Your task to perform on an android device: What is the news today? Image 0: 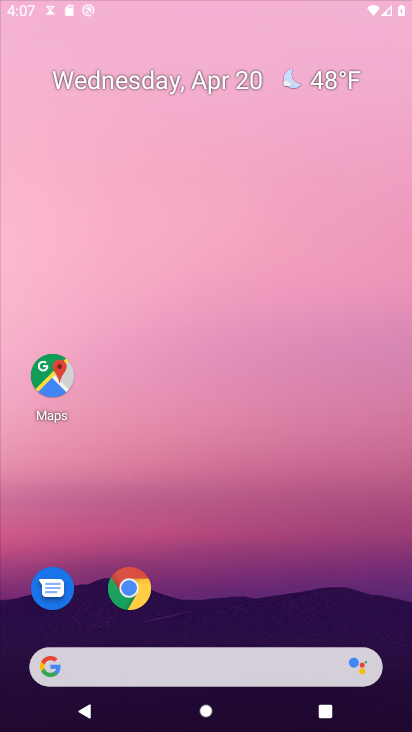
Step 0: click (243, 662)
Your task to perform on an android device: What is the news today? Image 1: 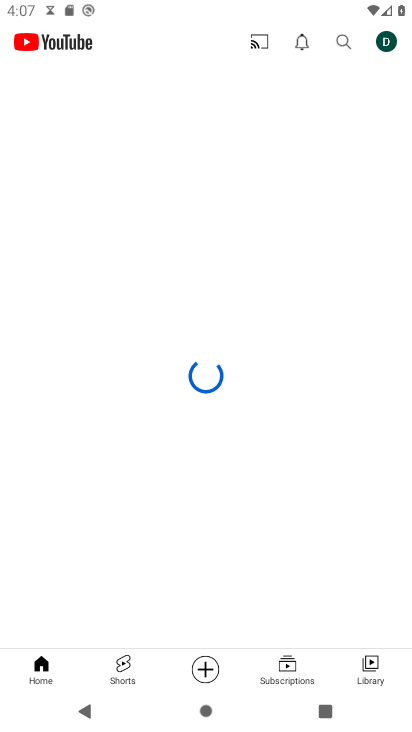
Step 1: press home button
Your task to perform on an android device: What is the news today? Image 2: 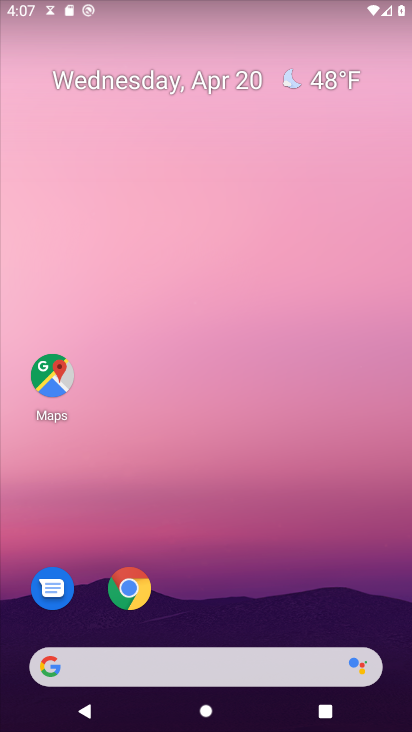
Step 2: drag from (0, 228) to (394, 337)
Your task to perform on an android device: What is the news today? Image 3: 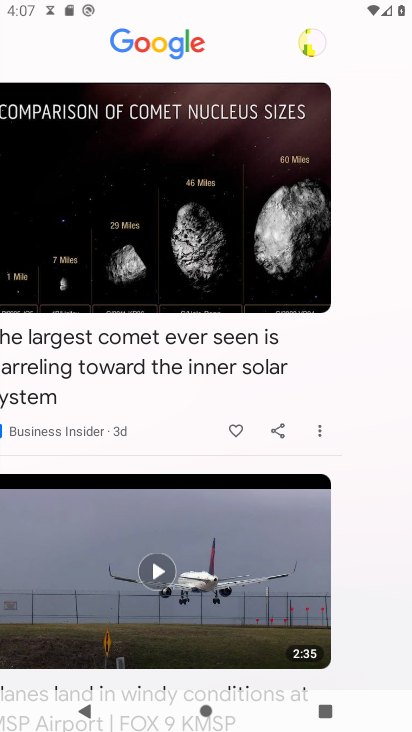
Step 3: click (121, 403)
Your task to perform on an android device: What is the news today? Image 4: 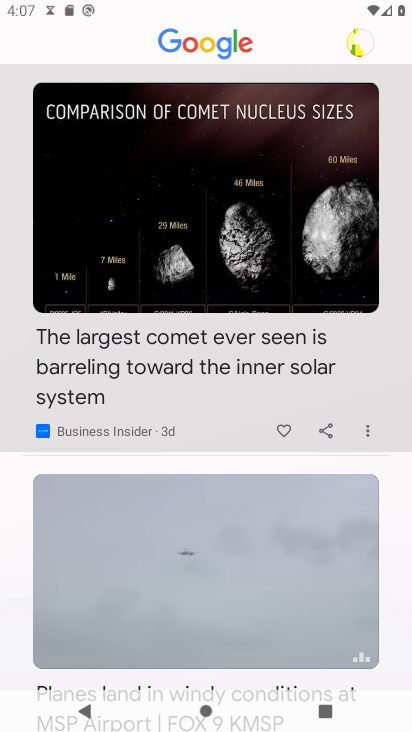
Step 4: task complete